Your task to perform on an android device: What's the weather going to be tomorrow? Image 0: 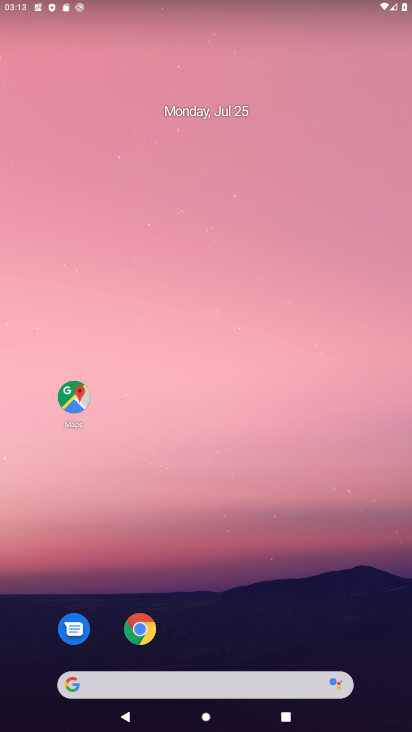
Step 0: click (272, 649)
Your task to perform on an android device: What's the weather going to be tomorrow? Image 1: 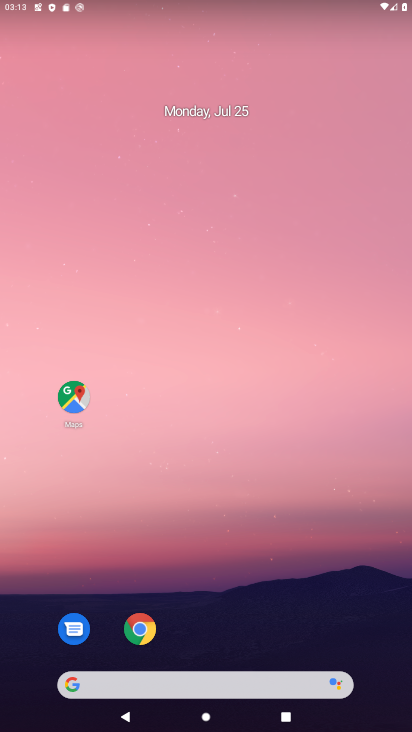
Step 1: click (137, 686)
Your task to perform on an android device: What's the weather going to be tomorrow? Image 2: 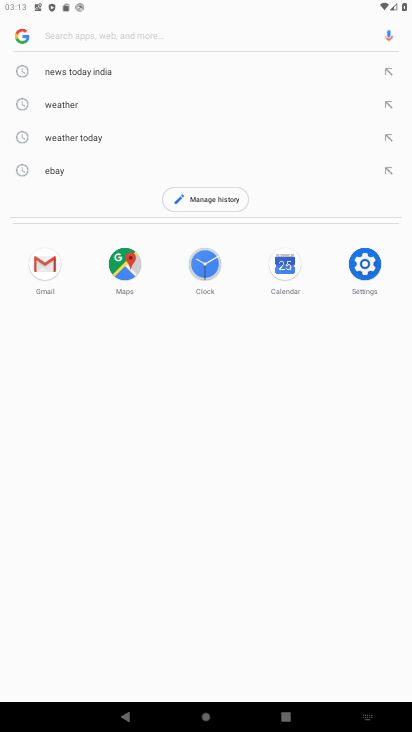
Step 2: click (57, 106)
Your task to perform on an android device: What's the weather going to be tomorrow? Image 3: 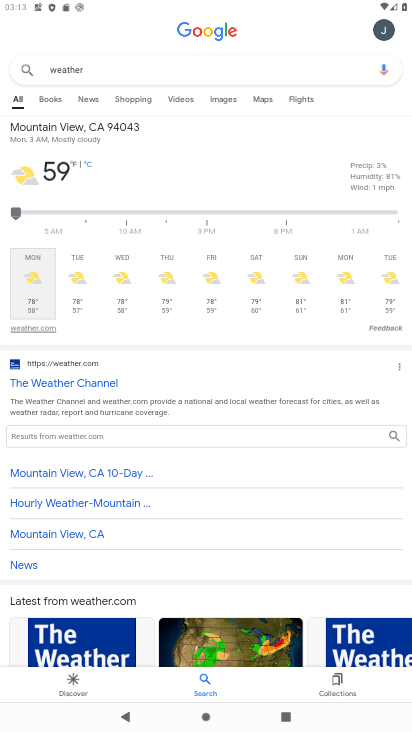
Step 3: click (75, 253)
Your task to perform on an android device: What's the weather going to be tomorrow? Image 4: 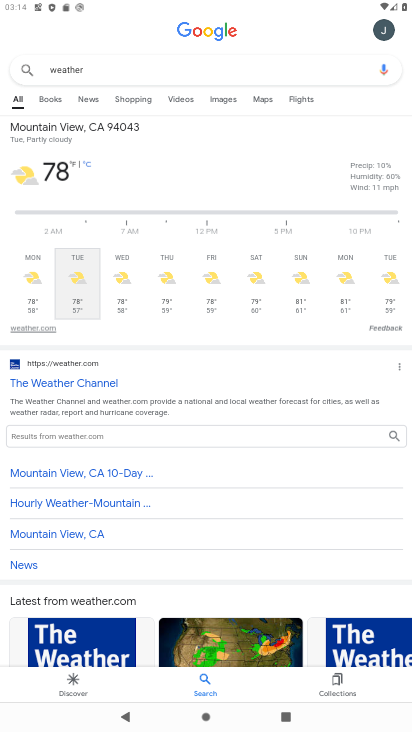
Step 4: task complete